Your task to perform on an android device: Search for hotels in London Image 0: 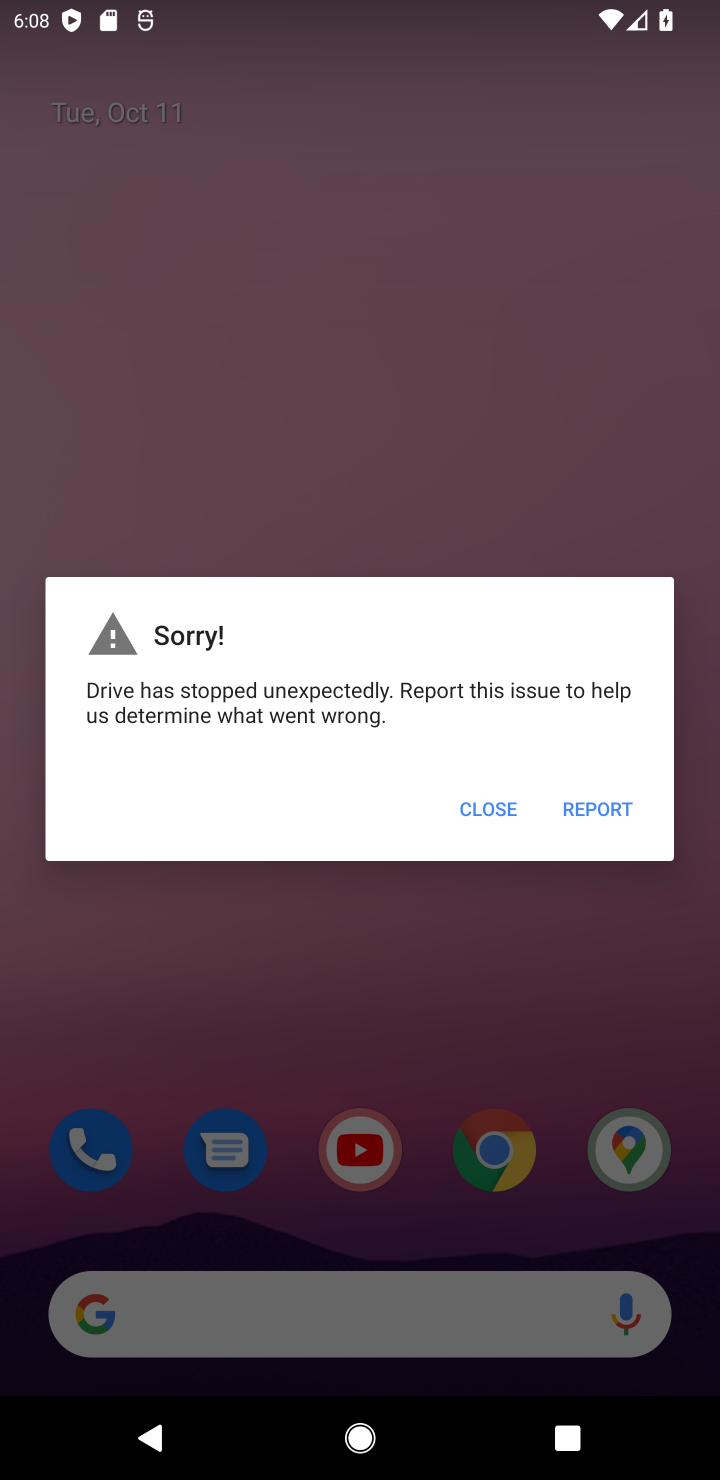
Step 0: press home button
Your task to perform on an android device: Search for hotels in London Image 1: 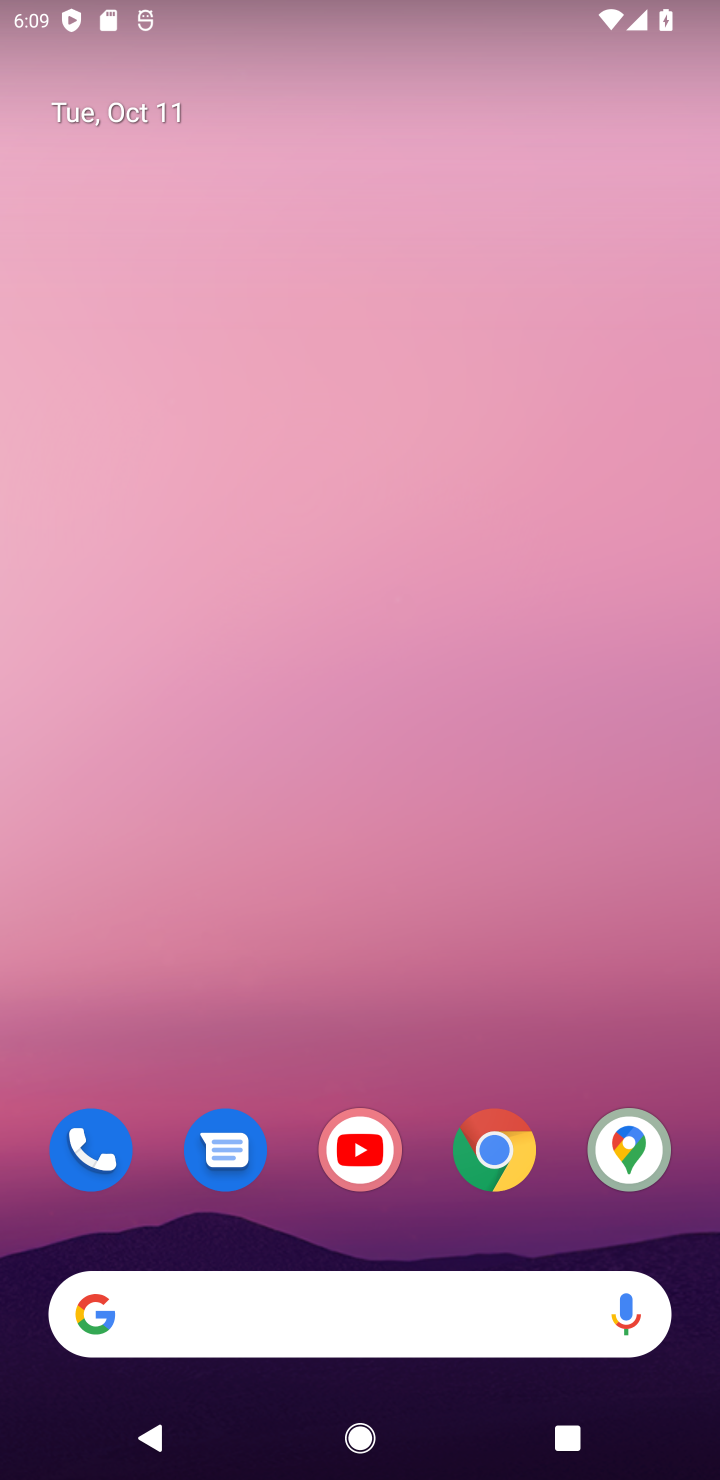
Step 1: click (499, 1164)
Your task to perform on an android device: Search for hotels in London Image 2: 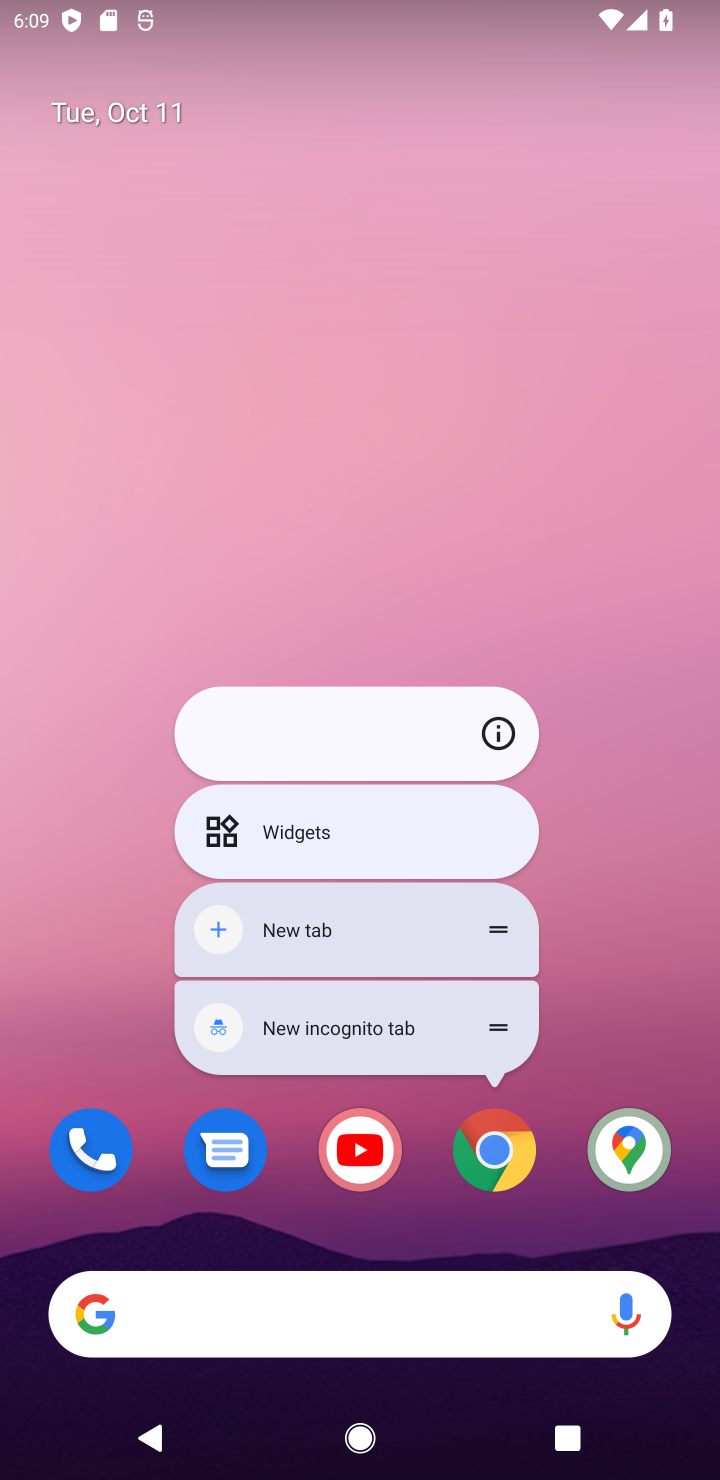
Step 2: click (499, 1154)
Your task to perform on an android device: Search for hotels in London Image 3: 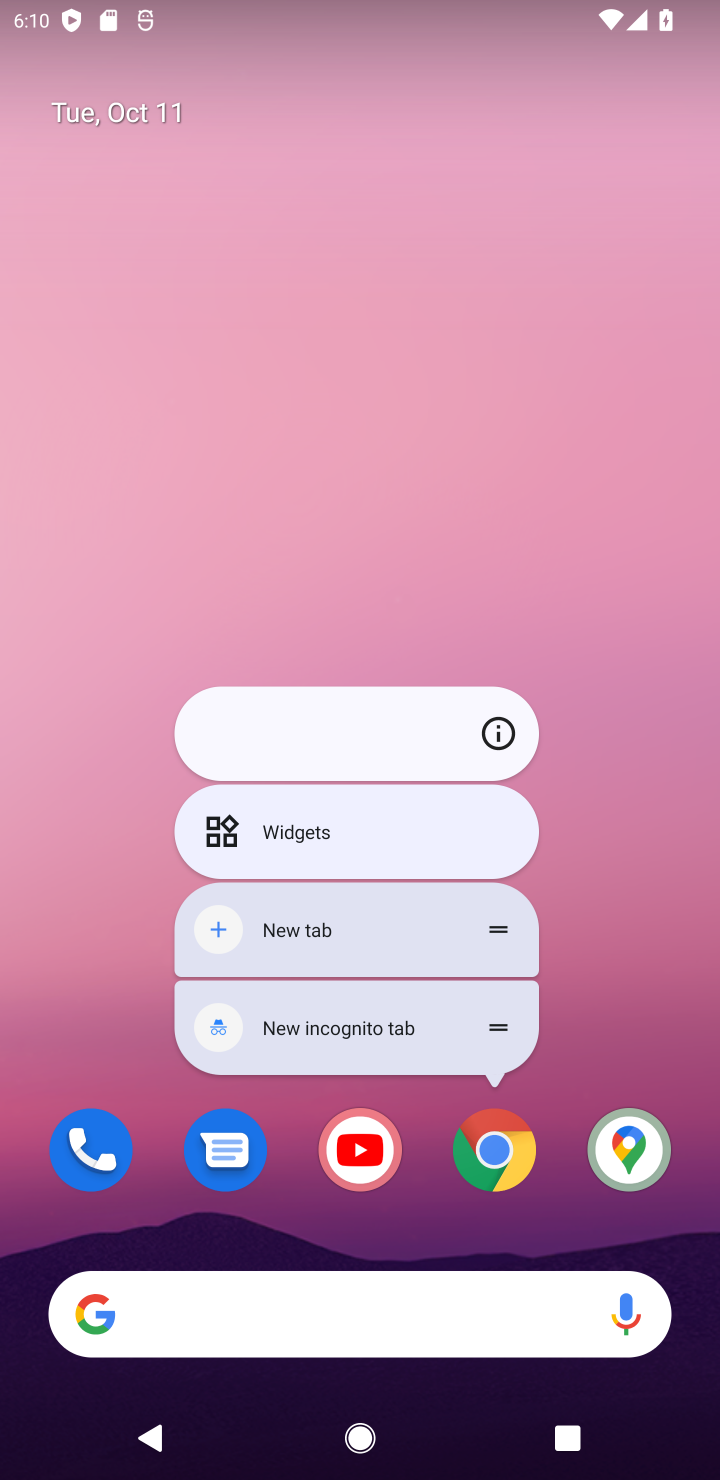
Step 3: click (509, 1139)
Your task to perform on an android device: Search for hotels in London Image 4: 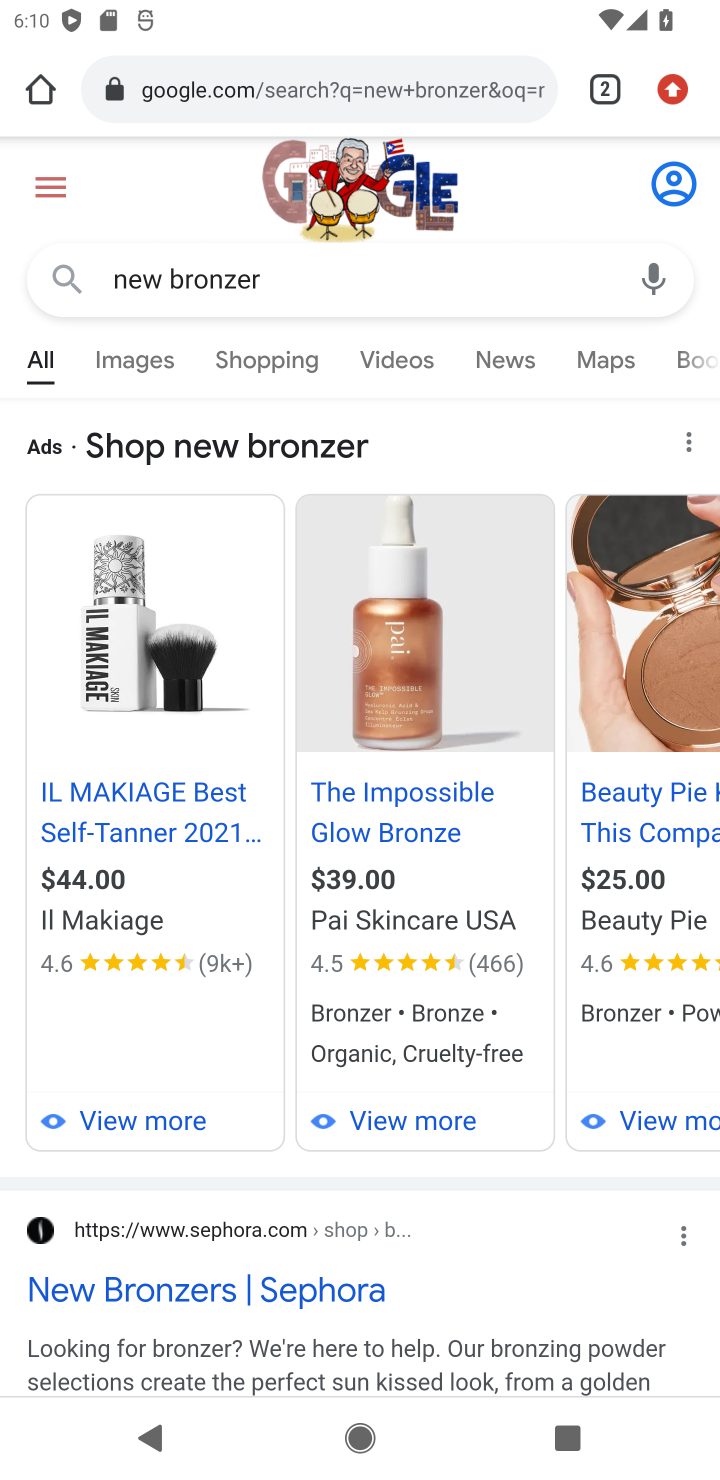
Step 4: click (313, 291)
Your task to perform on an android device: Search for hotels in London Image 5: 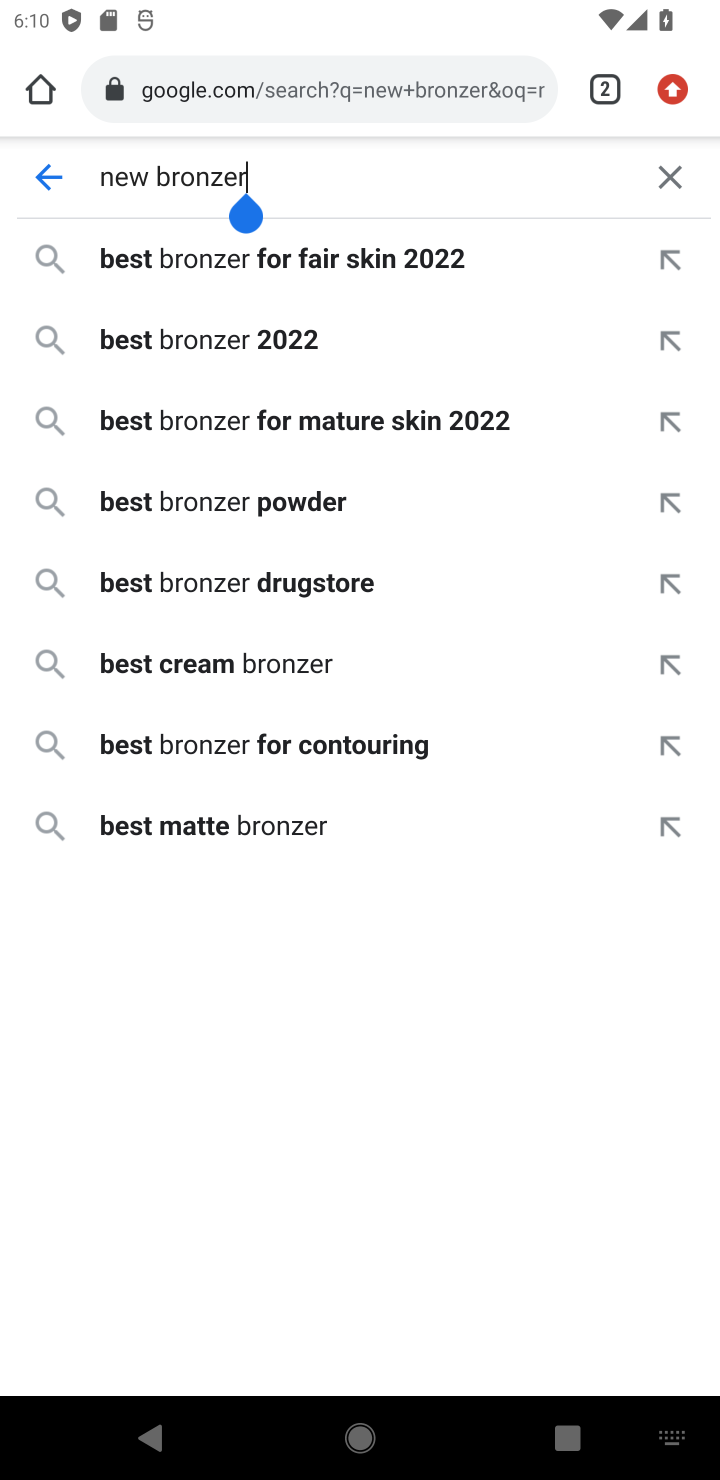
Step 5: click (669, 178)
Your task to perform on an android device: Search for hotels in London Image 6: 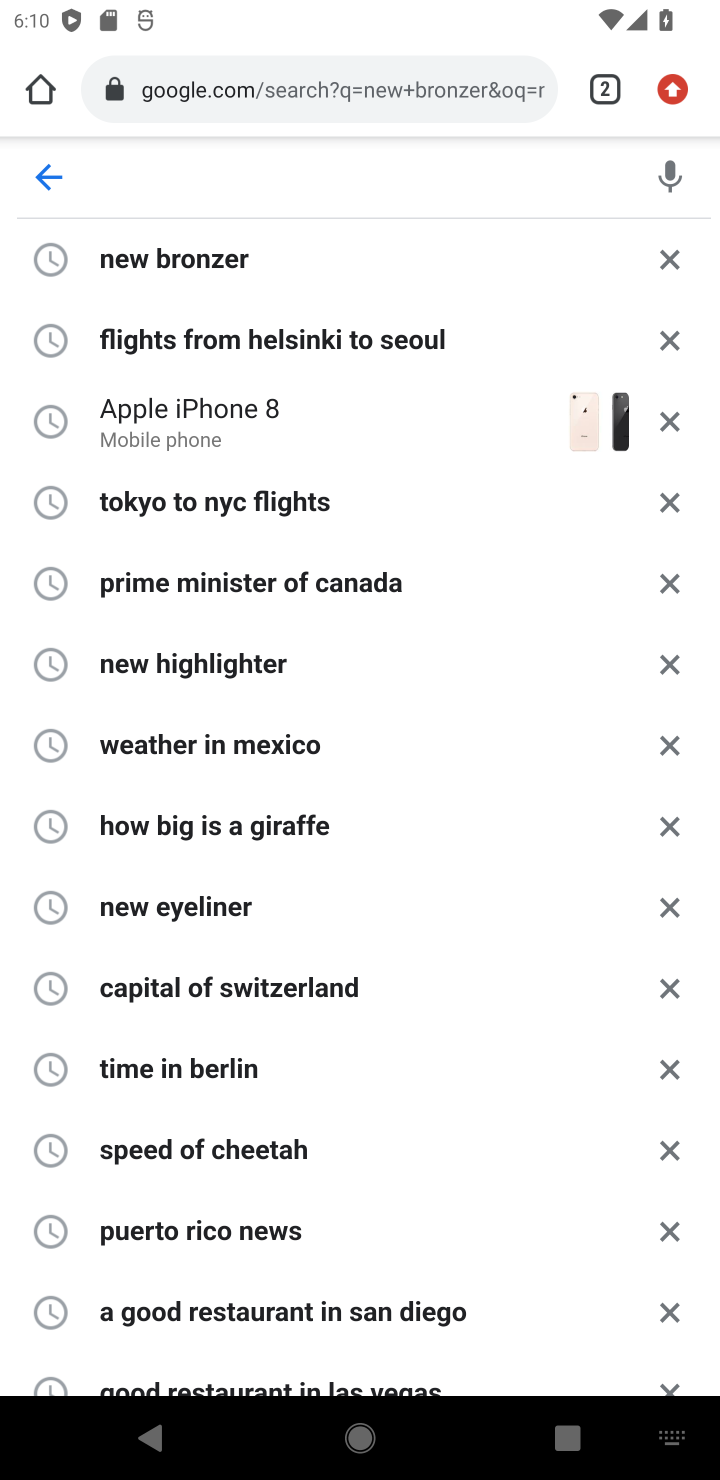
Step 6: type "hotels in London"
Your task to perform on an android device: Search for hotels in London Image 7: 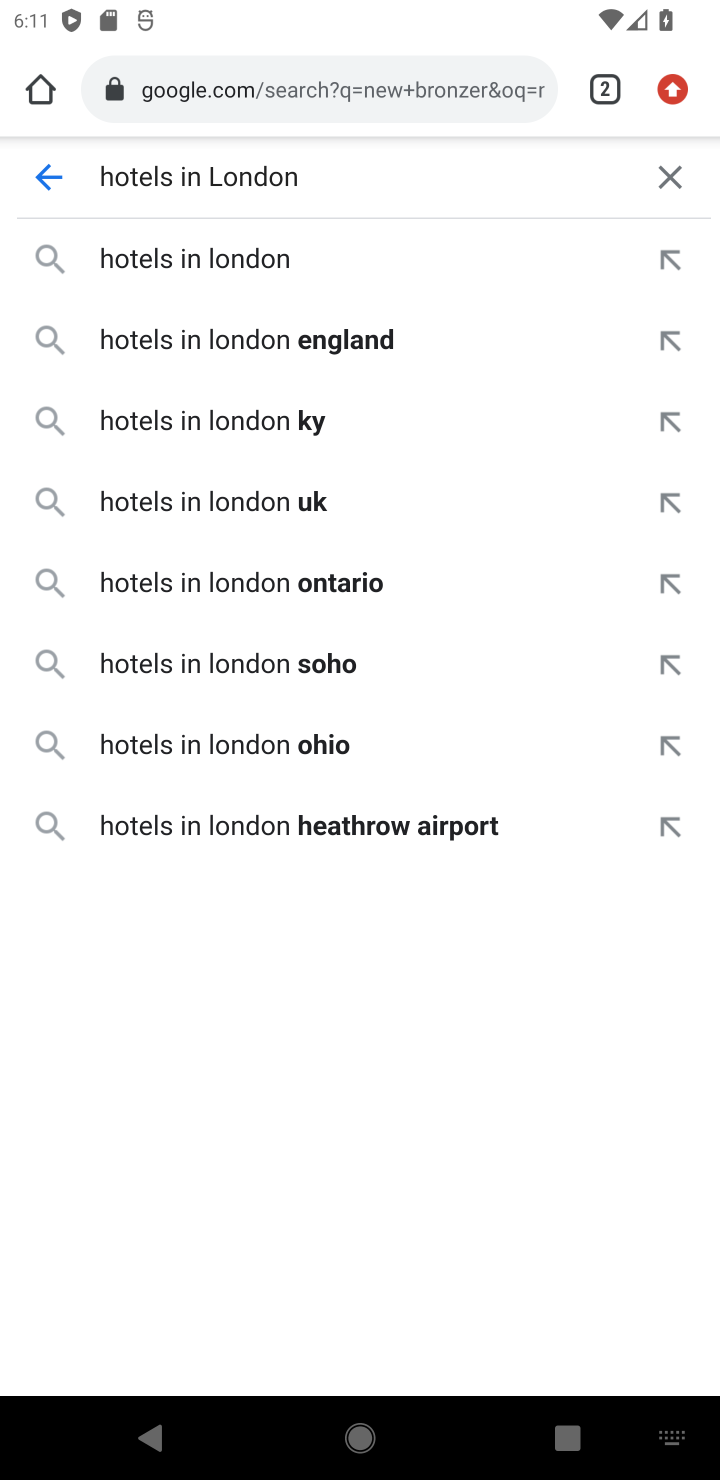
Step 7: click (218, 273)
Your task to perform on an android device: Search for hotels in London Image 8: 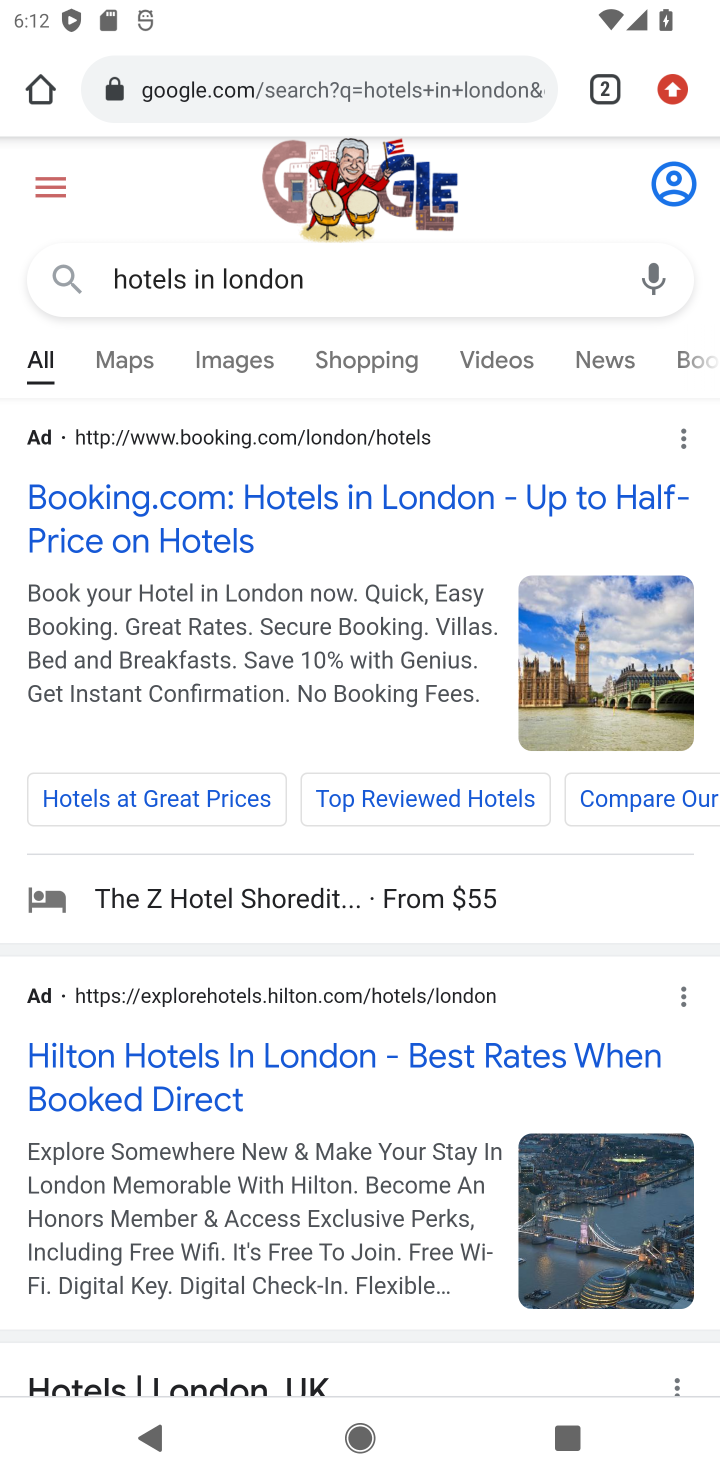
Step 8: click (211, 502)
Your task to perform on an android device: Search for hotels in London Image 9: 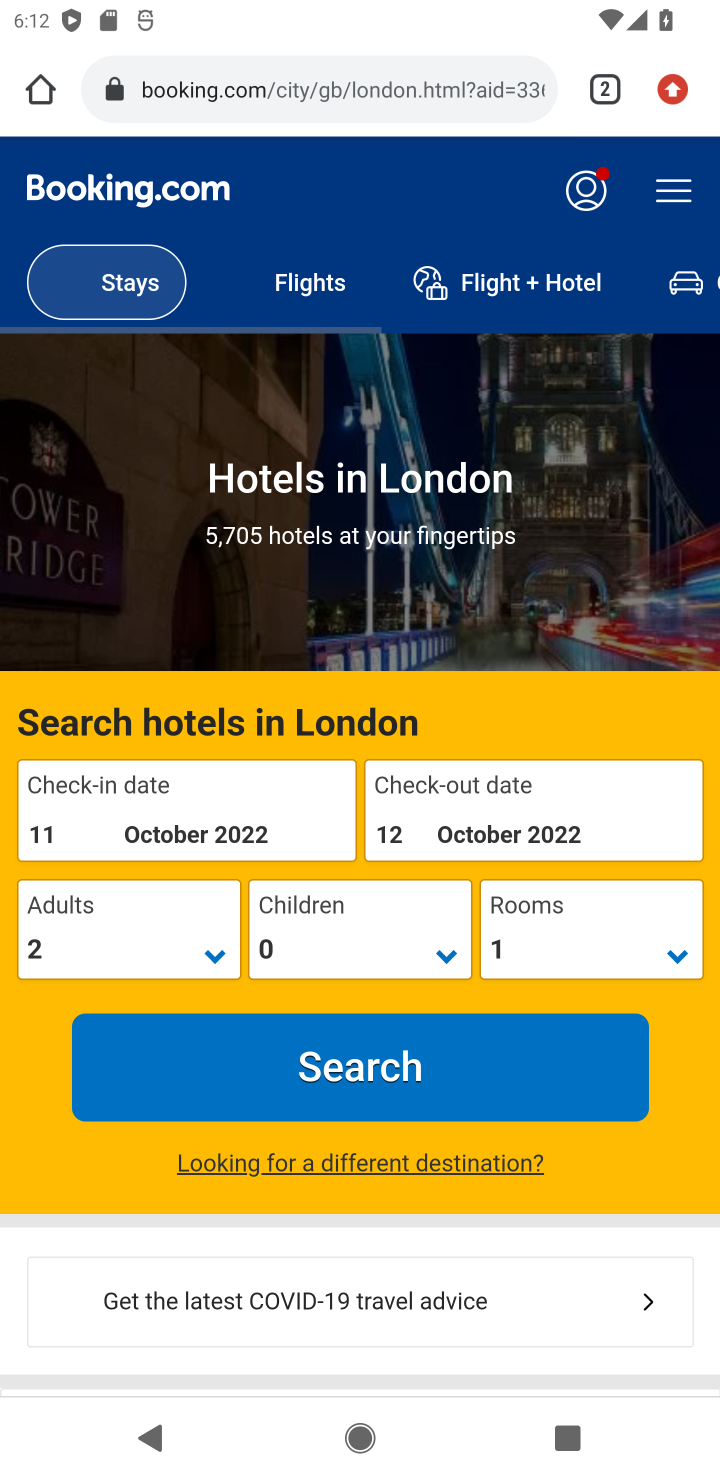
Step 9: task complete